Your task to perform on an android device: What's the weather today? Image 0: 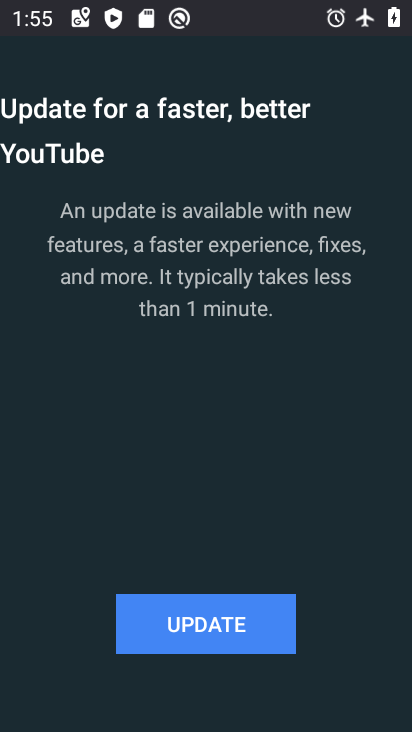
Step 0: press home button
Your task to perform on an android device: What's the weather today? Image 1: 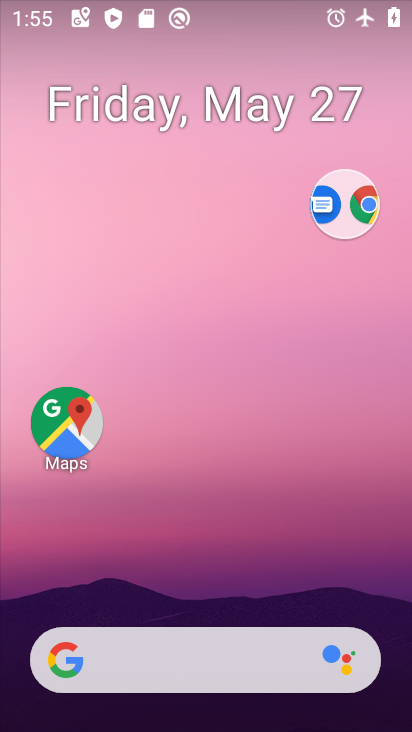
Step 1: drag from (250, 448) to (290, 226)
Your task to perform on an android device: What's the weather today? Image 2: 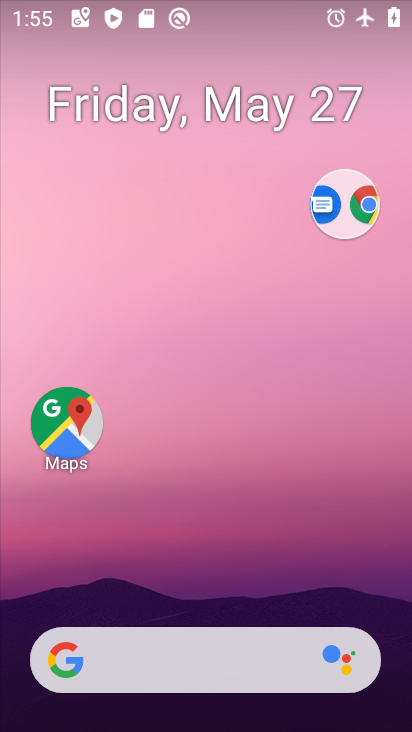
Step 2: drag from (225, 604) to (318, 147)
Your task to perform on an android device: What's the weather today? Image 3: 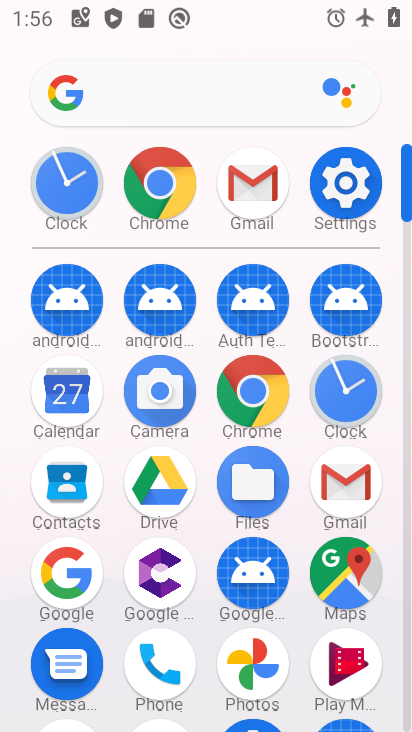
Step 3: click (66, 595)
Your task to perform on an android device: What's the weather today? Image 4: 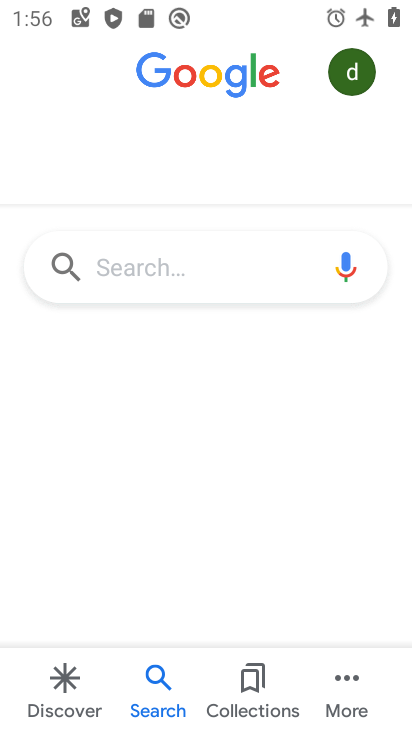
Step 4: click (60, 684)
Your task to perform on an android device: What's the weather today? Image 5: 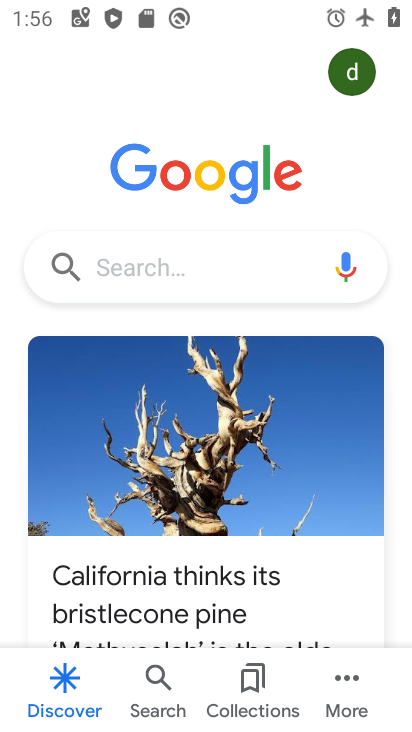
Step 5: click (179, 278)
Your task to perform on an android device: What's the weather today? Image 6: 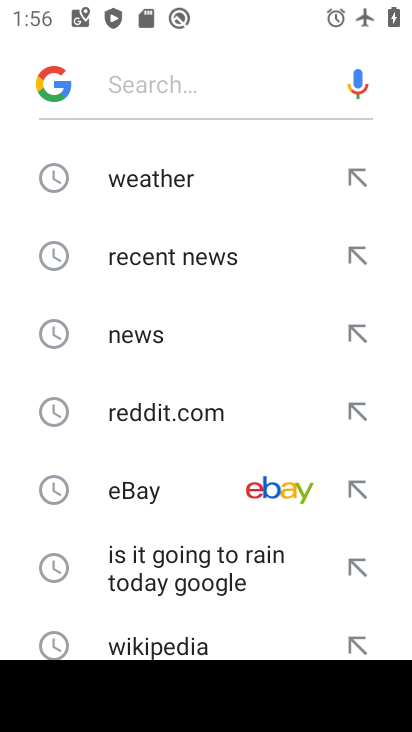
Step 6: click (173, 169)
Your task to perform on an android device: What's the weather today? Image 7: 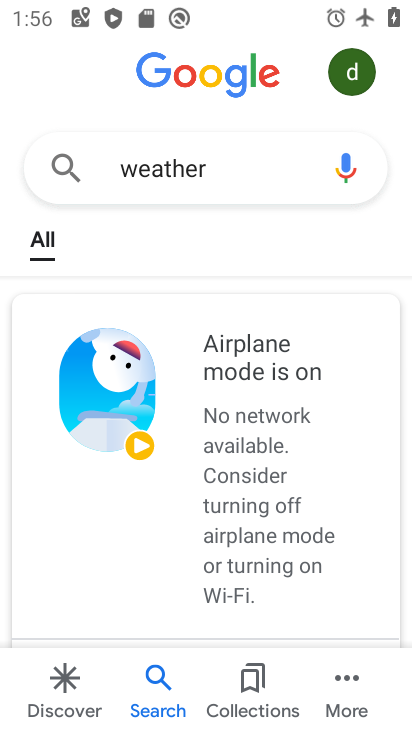
Step 7: task complete